Your task to perform on an android device: Empty the shopping cart on newegg.com. Image 0: 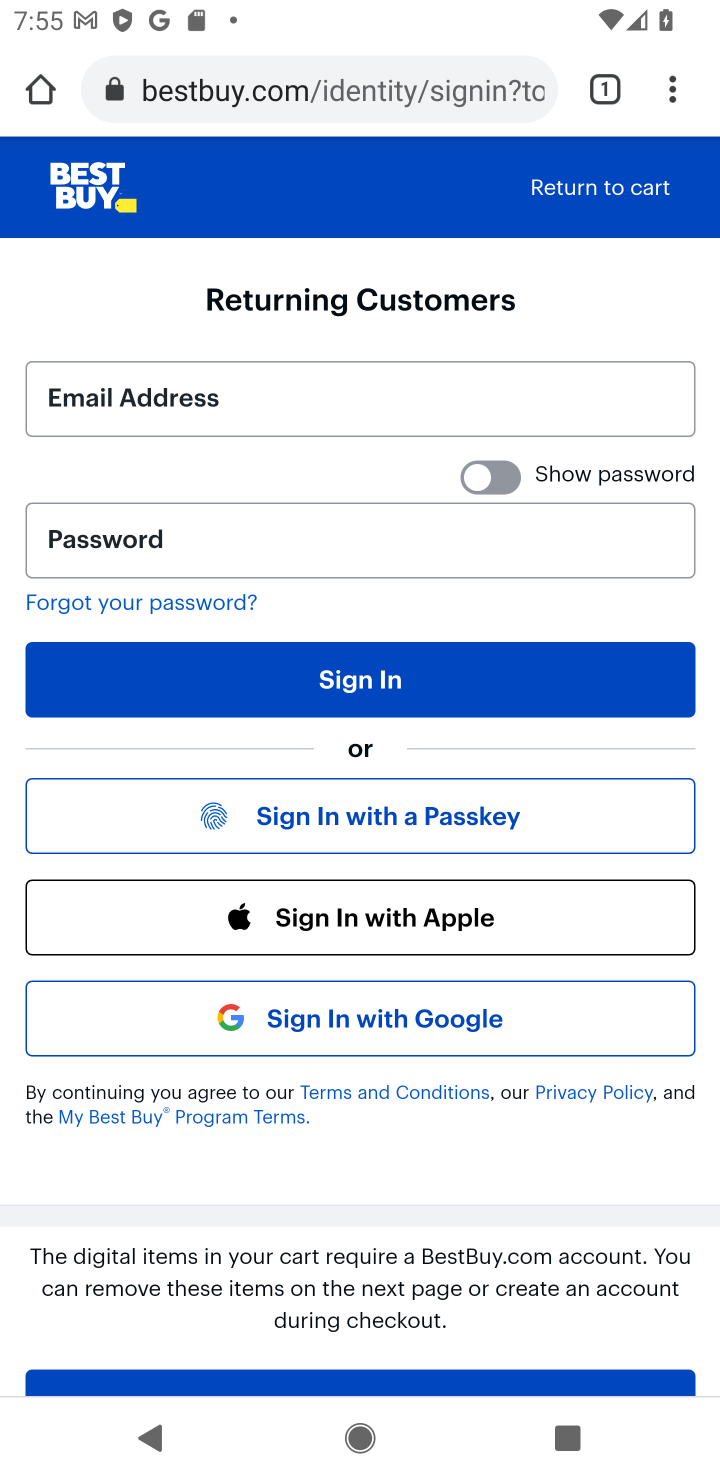
Step 0: click (163, 92)
Your task to perform on an android device: Empty the shopping cart on newegg.com. Image 1: 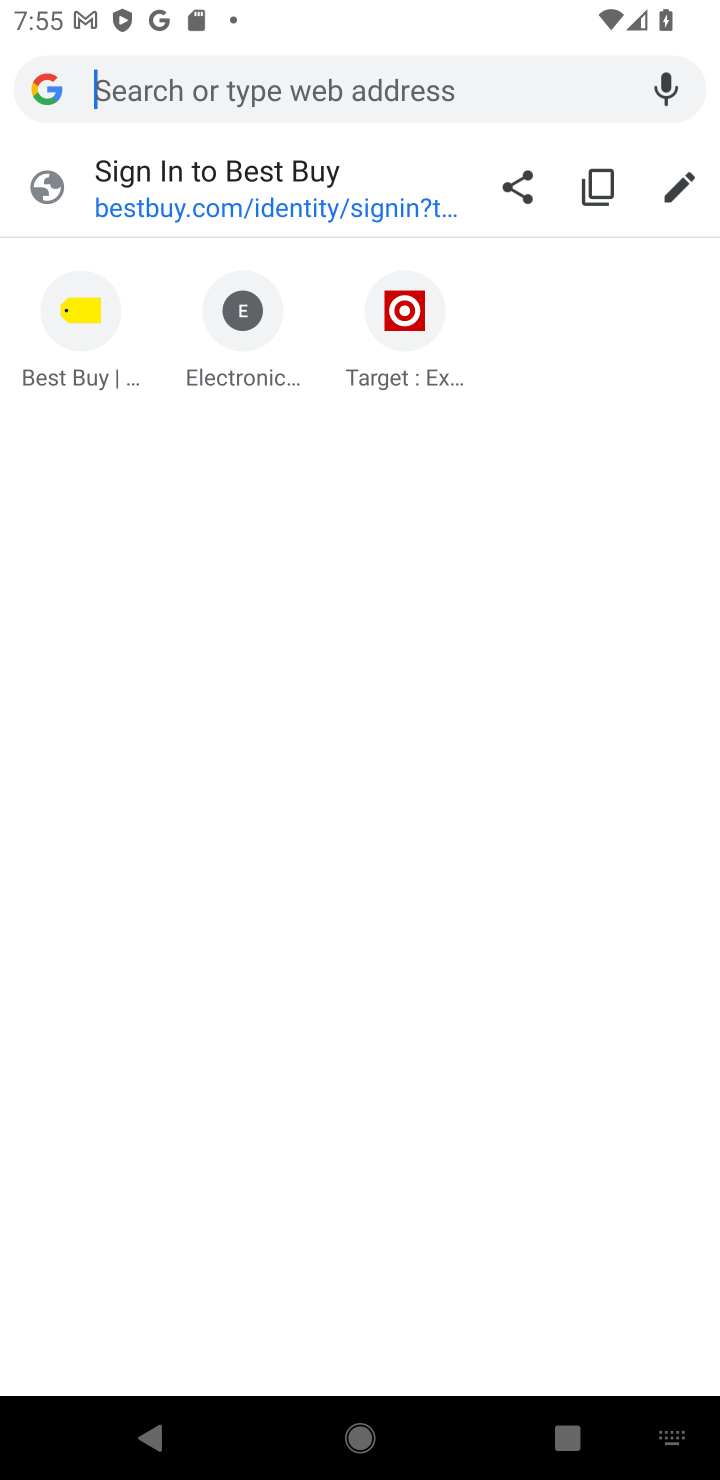
Step 1: type "newegg.com"
Your task to perform on an android device: Empty the shopping cart on newegg.com. Image 2: 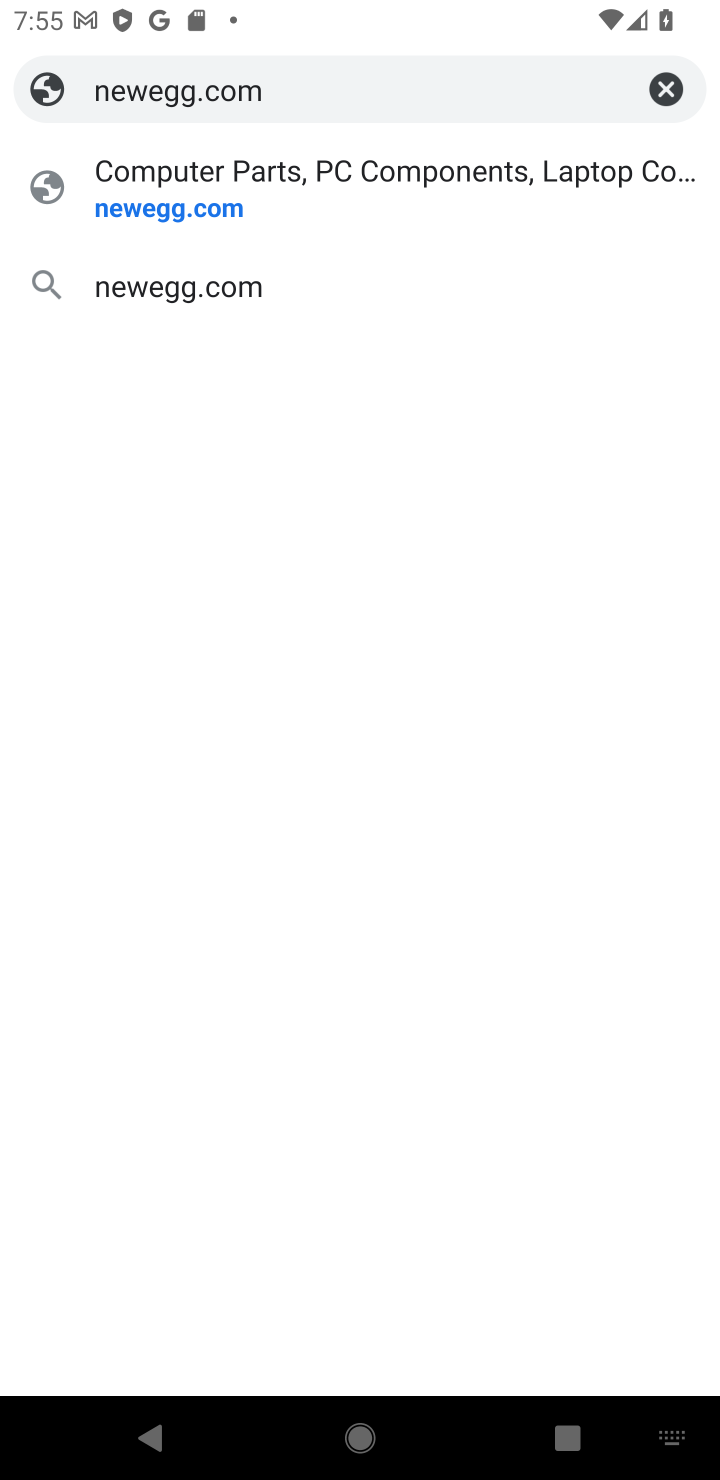
Step 2: press enter
Your task to perform on an android device: Empty the shopping cart on newegg.com. Image 3: 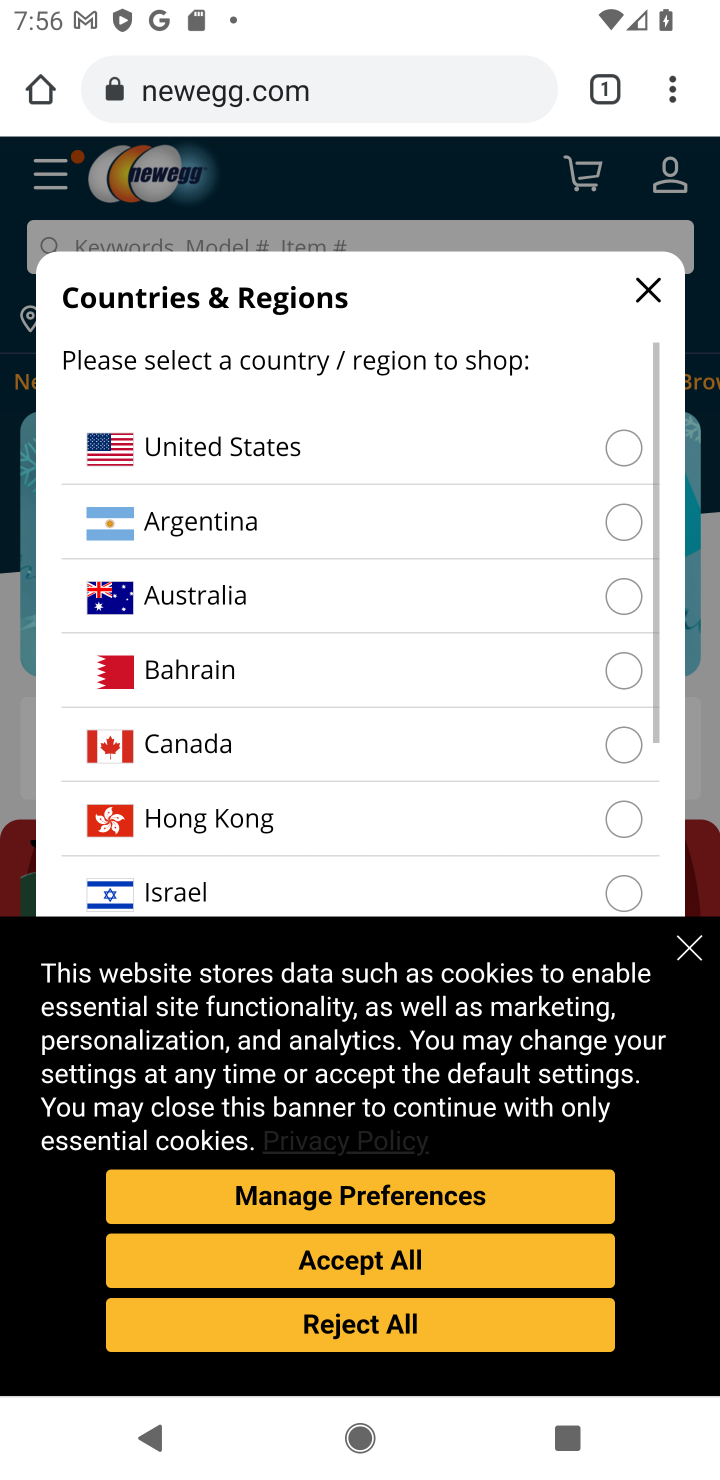
Step 3: click (627, 437)
Your task to perform on an android device: Empty the shopping cart on newegg.com. Image 4: 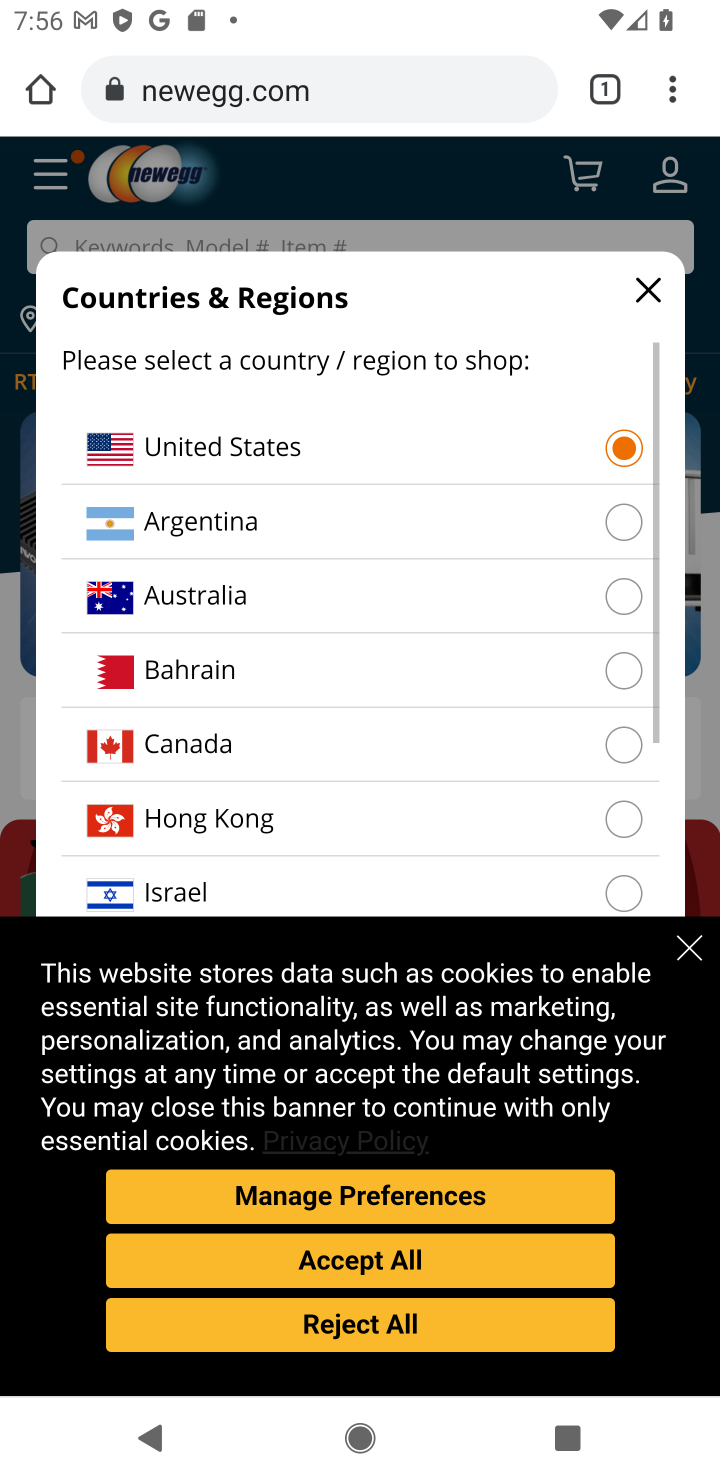
Step 4: click (697, 955)
Your task to perform on an android device: Empty the shopping cart on newegg.com. Image 5: 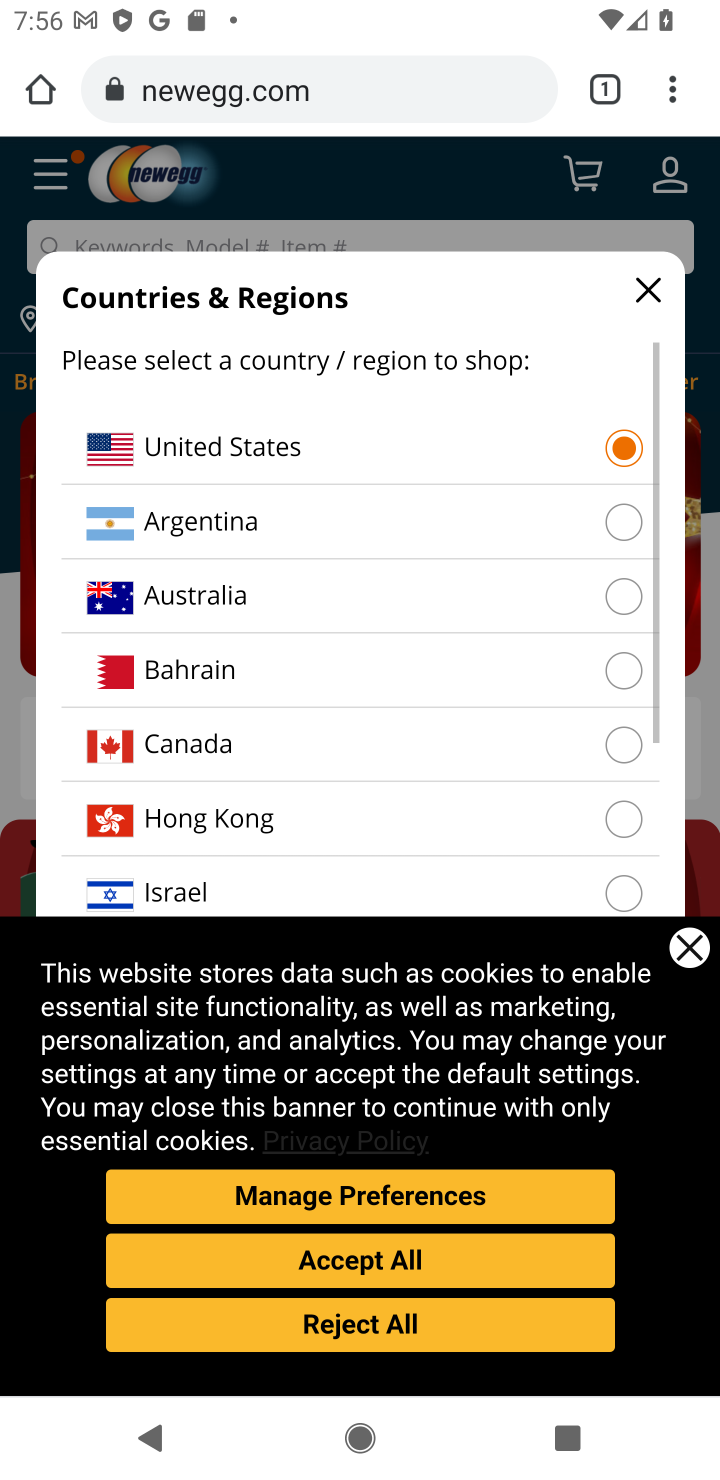
Step 5: click (363, 1260)
Your task to perform on an android device: Empty the shopping cart on newegg.com. Image 6: 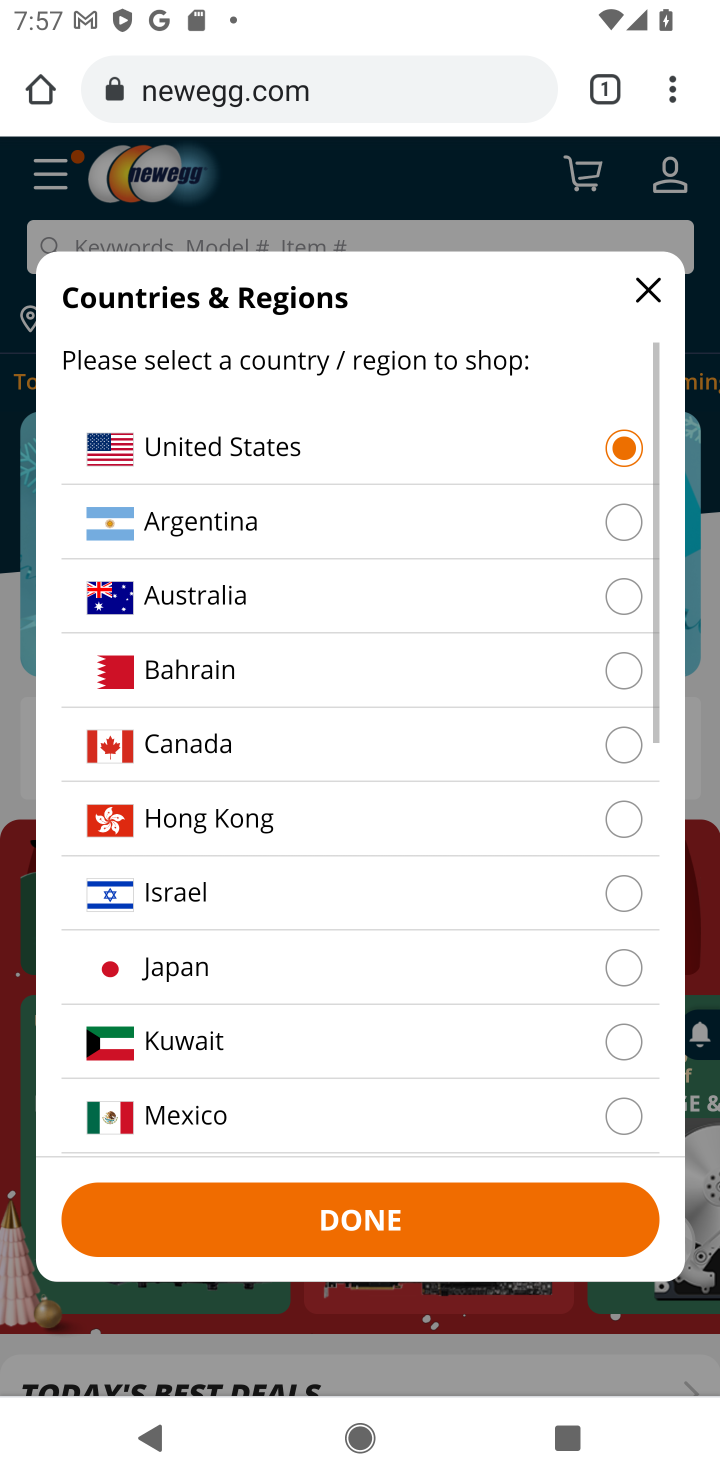
Step 6: click (473, 1197)
Your task to perform on an android device: Empty the shopping cart on newegg.com. Image 7: 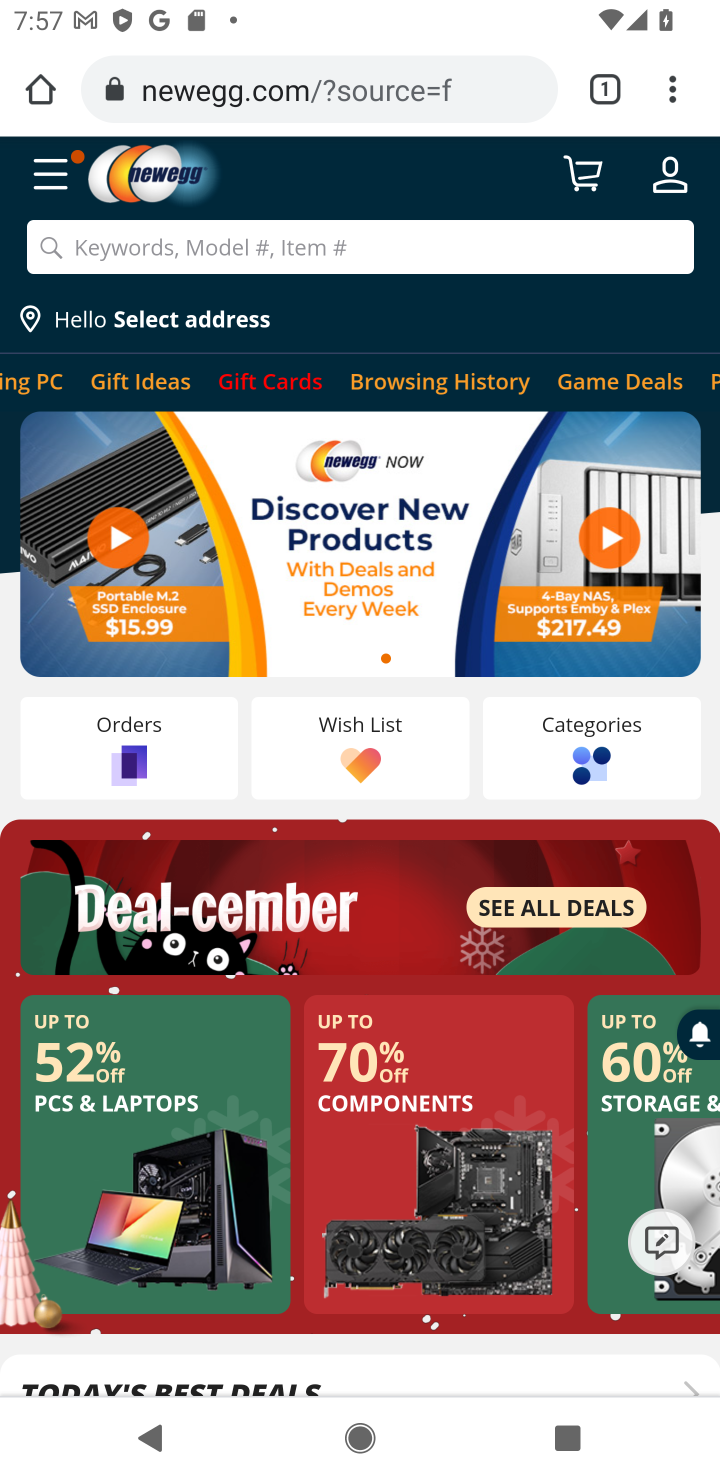
Step 7: click (578, 171)
Your task to perform on an android device: Empty the shopping cart on newegg.com. Image 8: 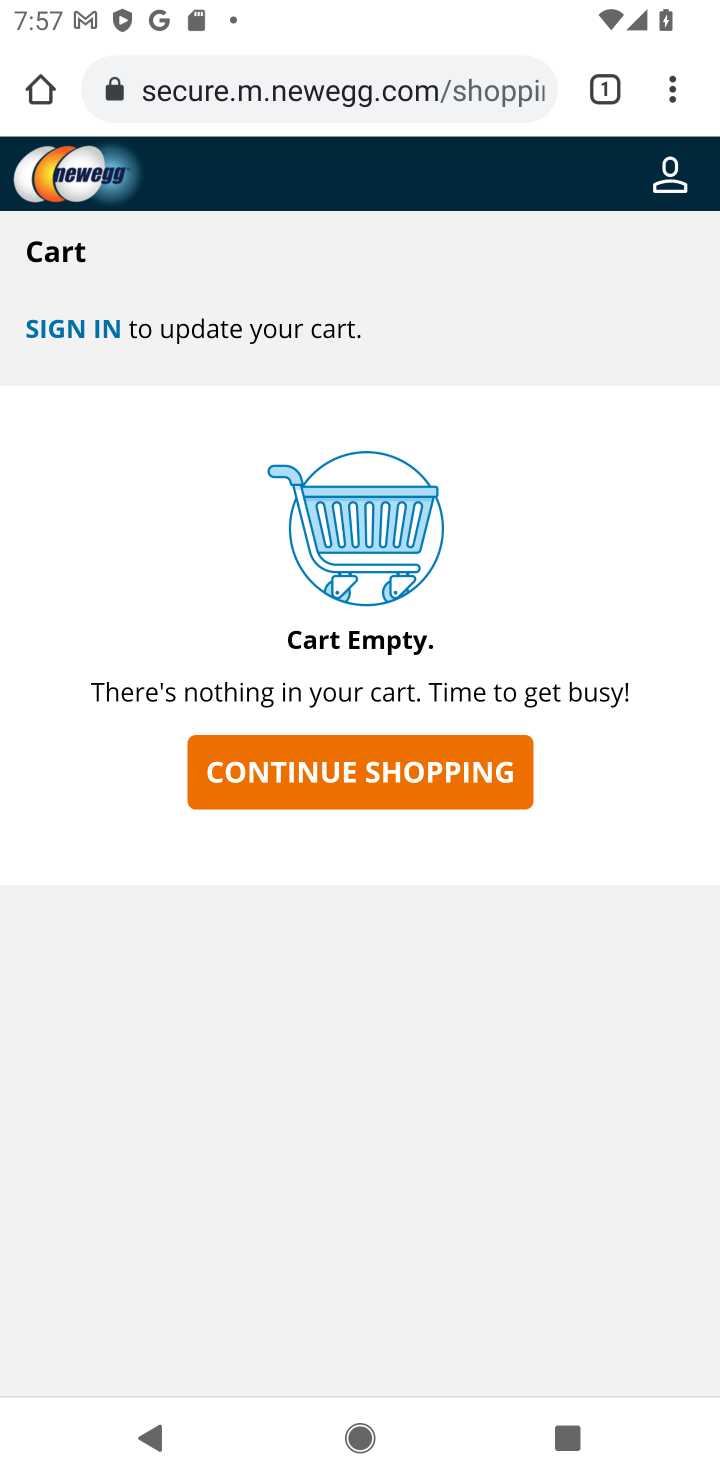
Step 8: task complete